Your task to perform on an android device: Open Google Maps and go to "Timeline" Image 0: 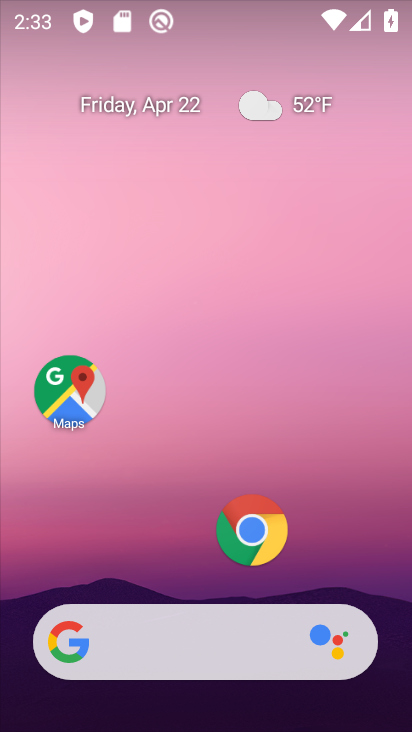
Step 0: click (56, 408)
Your task to perform on an android device: Open Google Maps and go to "Timeline" Image 1: 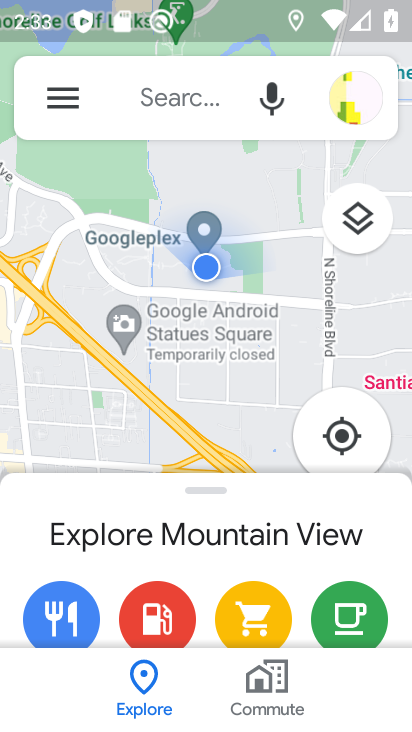
Step 1: click (58, 107)
Your task to perform on an android device: Open Google Maps and go to "Timeline" Image 2: 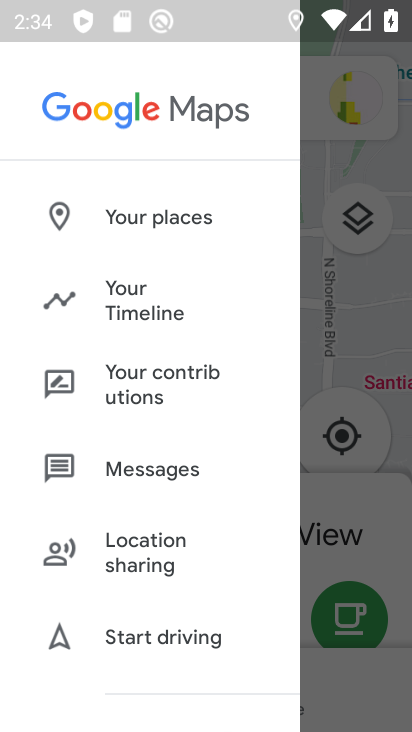
Step 2: click (62, 303)
Your task to perform on an android device: Open Google Maps and go to "Timeline" Image 3: 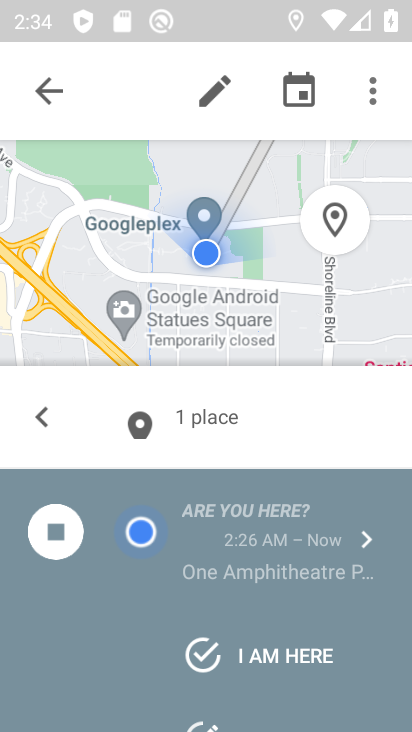
Step 3: task complete